Your task to perform on an android device: Open privacy settings Image 0: 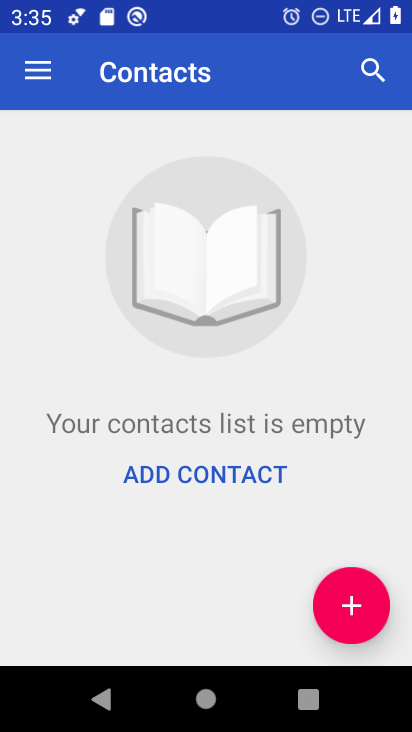
Step 0: press home button
Your task to perform on an android device: Open privacy settings Image 1: 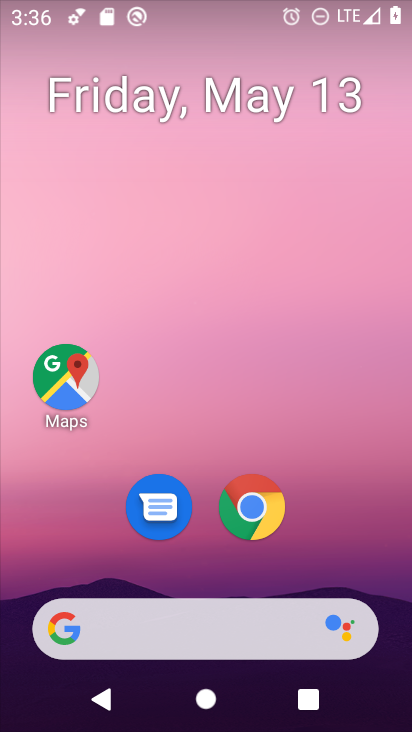
Step 1: drag from (301, 541) to (342, 100)
Your task to perform on an android device: Open privacy settings Image 2: 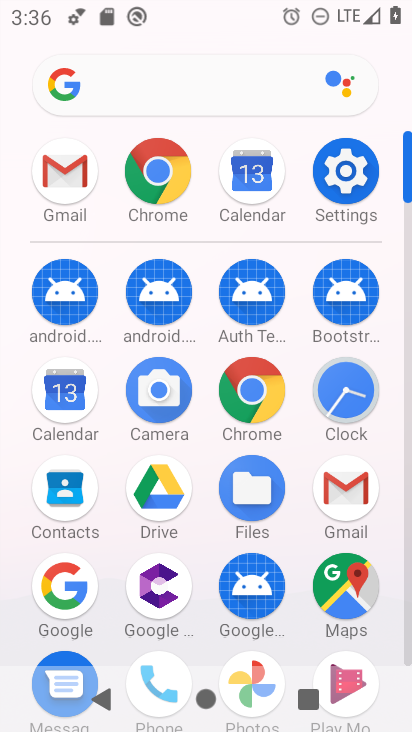
Step 2: click (333, 175)
Your task to perform on an android device: Open privacy settings Image 3: 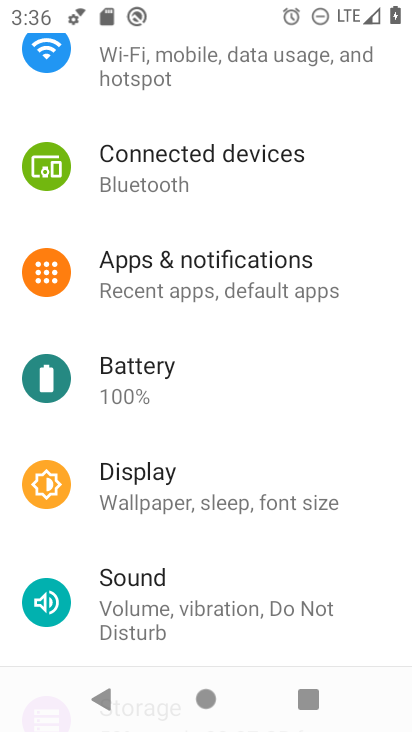
Step 3: task complete